Your task to perform on an android device: Open Android settings Image 0: 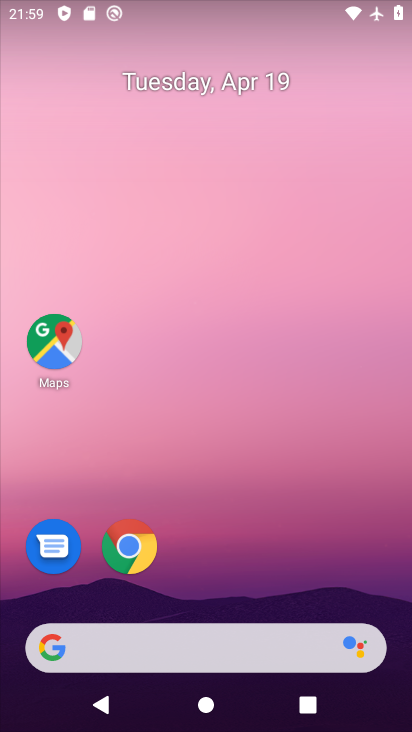
Step 0: drag from (220, 625) to (233, 8)
Your task to perform on an android device: Open Android settings Image 1: 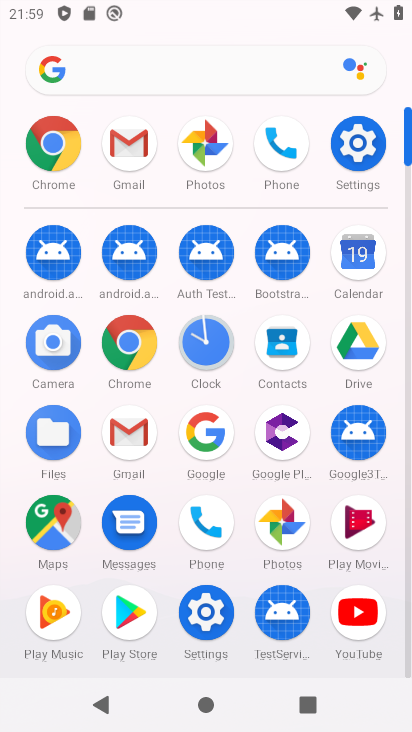
Step 1: click (367, 142)
Your task to perform on an android device: Open Android settings Image 2: 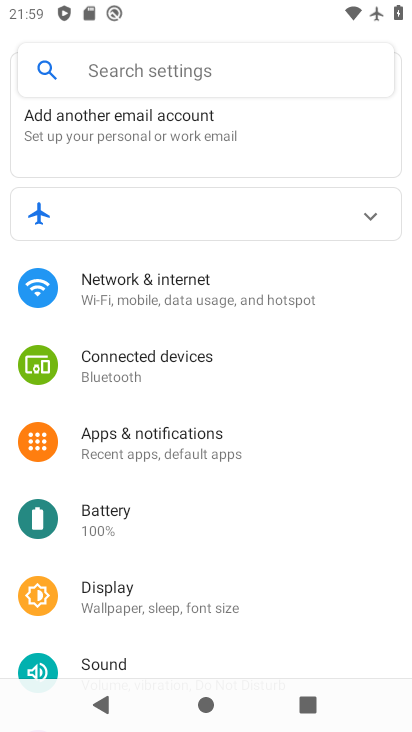
Step 2: drag from (278, 492) to (286, 113)
Your task to perform on an android device: Open Android settings Image 3: 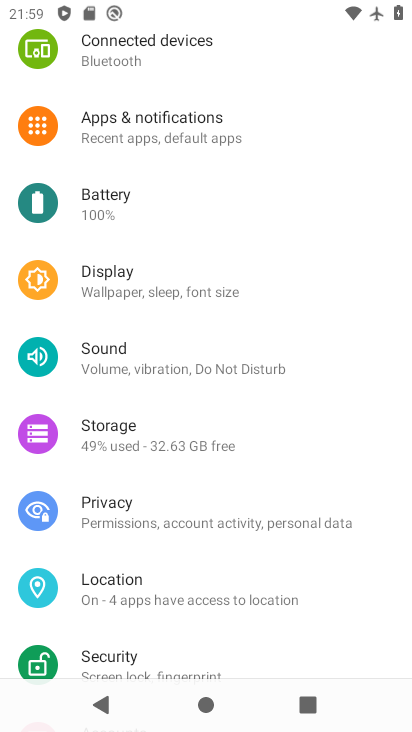
Step 3: drag from (249, 546) to (254, 22)
Your task to perform on an android device: Open Android settings Image 4: 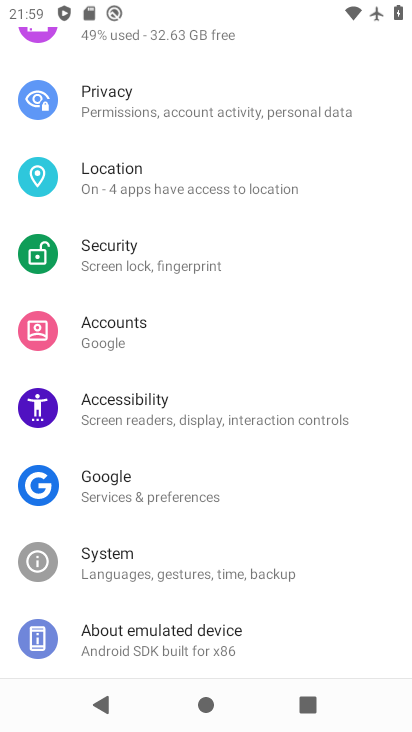
Step 4: click (155, 632)
Your task to perform on an android device: Open Android settings Image 5: 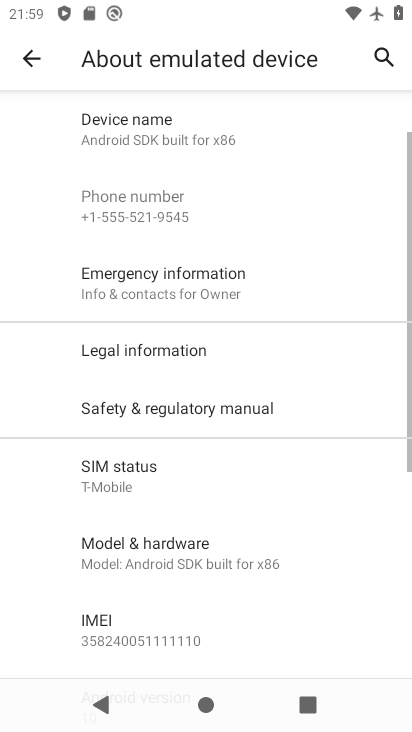
Step 5: task complete